Your task to perform on an android device: star an email in the gmail app Image 0: 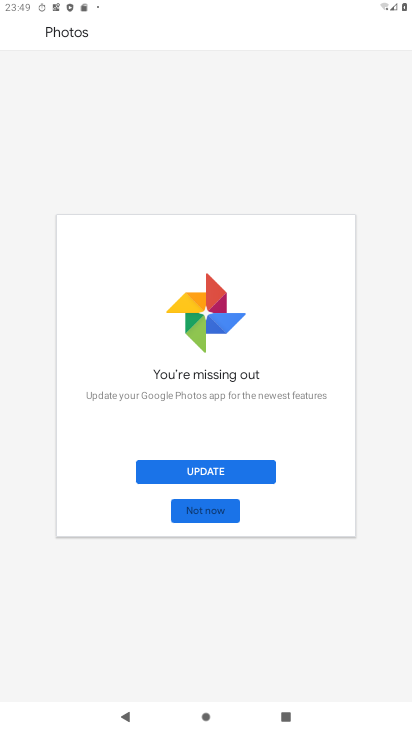
Step 0: press home button
Your task to perform on an android device: star an email in the gmail app Image 1: 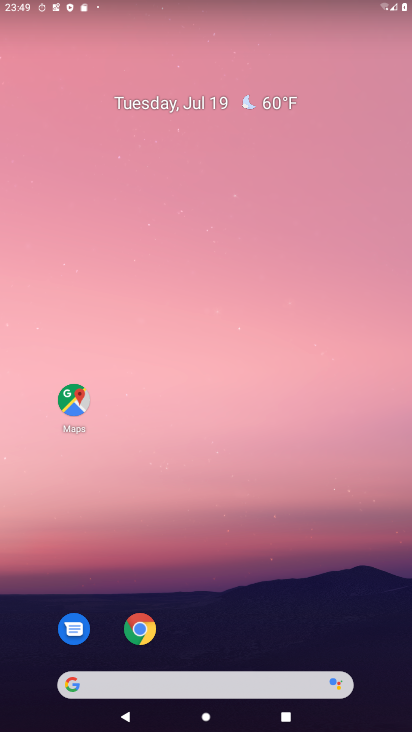
Step 1: drag from (281, 653) to (274, 50)
Your task to perform on an android device: star an email in the gmail app Image 2: 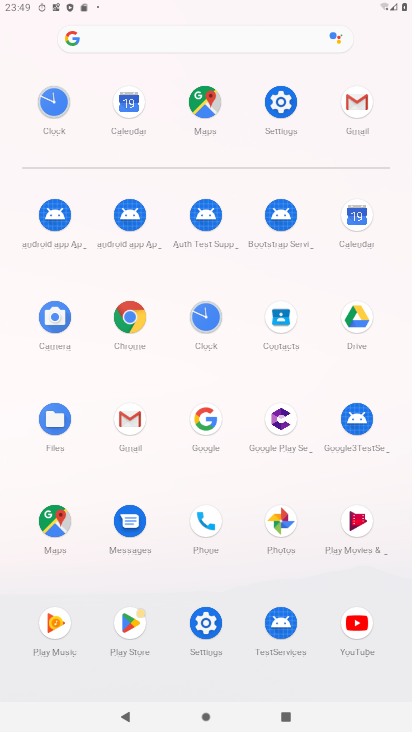
Step 2: click (359, 110)
Your task to perform on an android device: star an email in the gmail app Image 3: 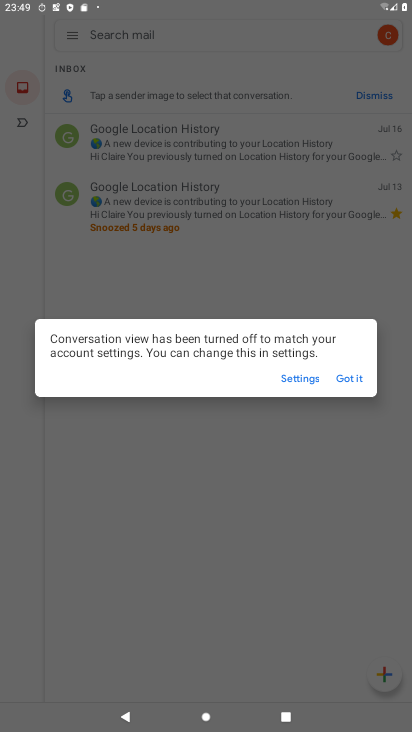
Step 3: click (353, 379)
Your task to perform on an android device: star an email in the gmail app Image 4: 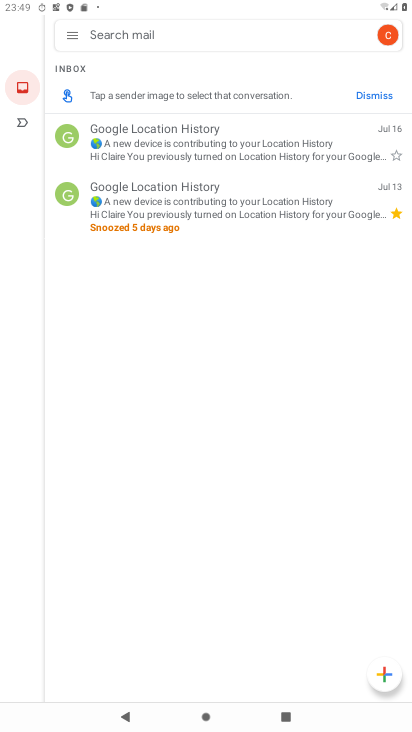
Step 4: click (61, 31)
Your task to perform on an android device: star an email in the gmail app Image 5: 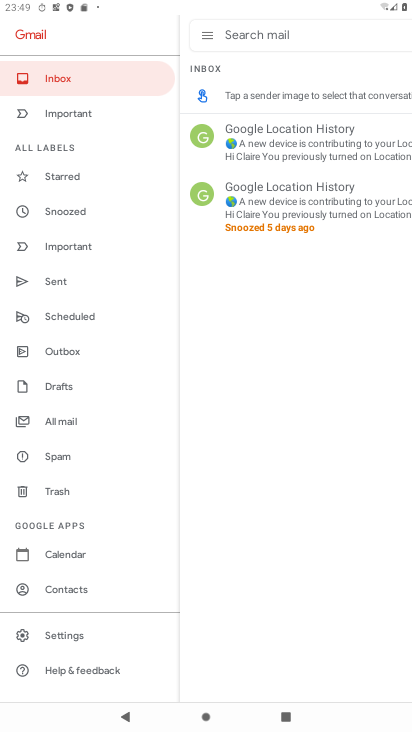
Step 5: click (69, 417)
Your task to perform on an android device: star an email in the gmail app Image 6: 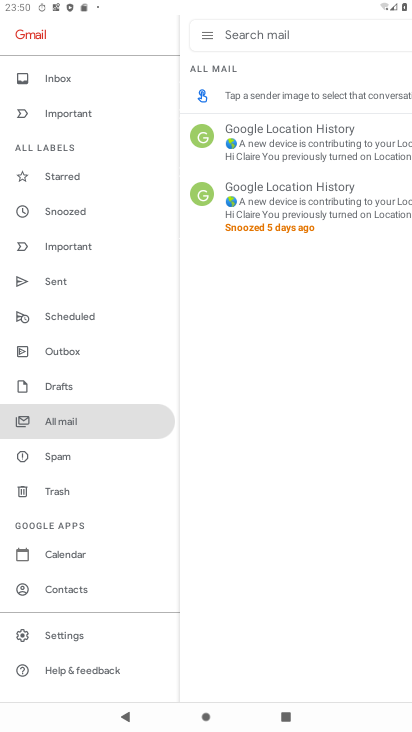
Step 6: click (201, 30)
Your task to perform on an android device: star an email in the gmail app Image 7: 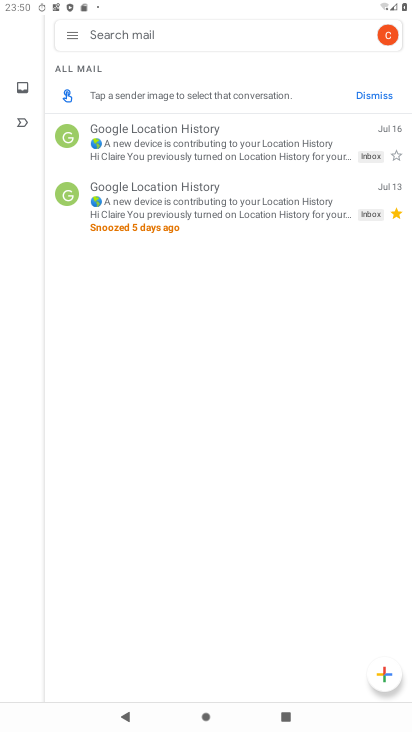
Step 7: click (397, 156)
Your task to perform on an android device: star an email in the gmail app Image 8: 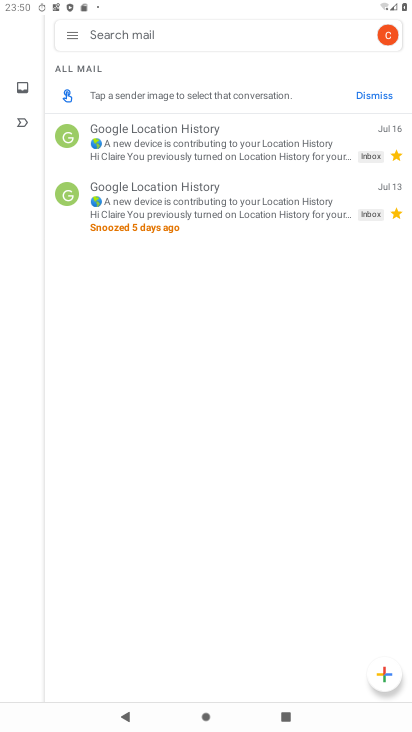
Step 8: task complete